Your task to perform on an android device: toggle notification dots Image 0: 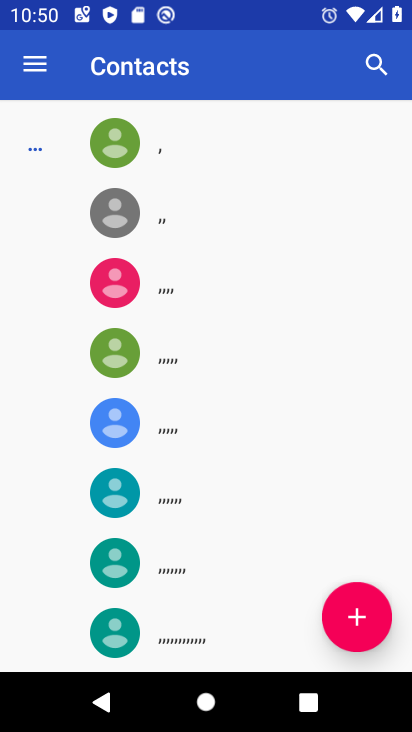
Step 0: press home button
Your task to perform on an android device: toggle notification dots Image 1: 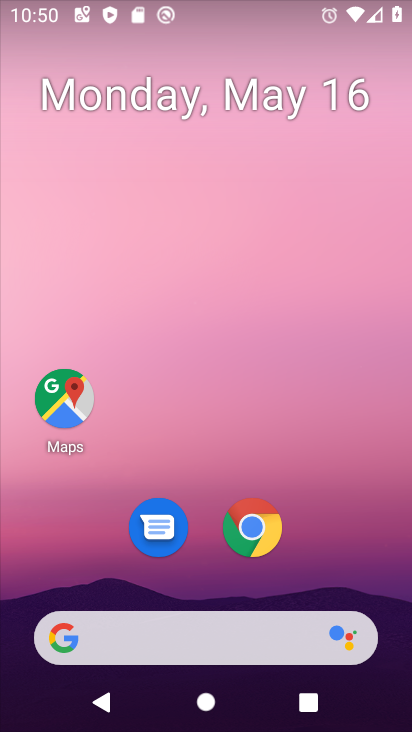
Step 1: drag from (342, 587) to (331, 18)
Your task to perform on an android device: toggle notification dots Image 2: 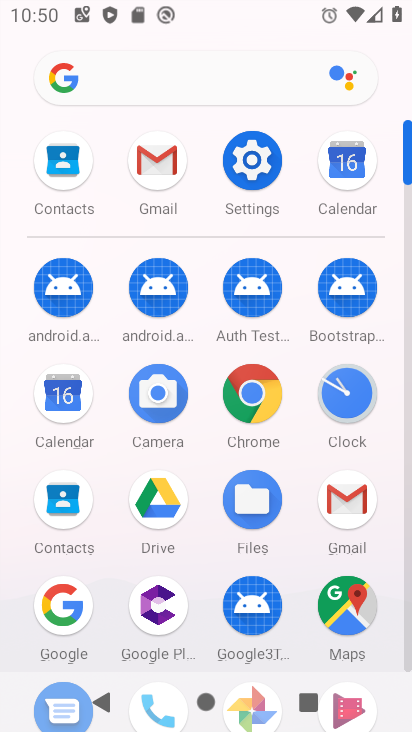
Step 2: click (243, 169)
Your task to perform on an android device: toggle notification dots Image 3: 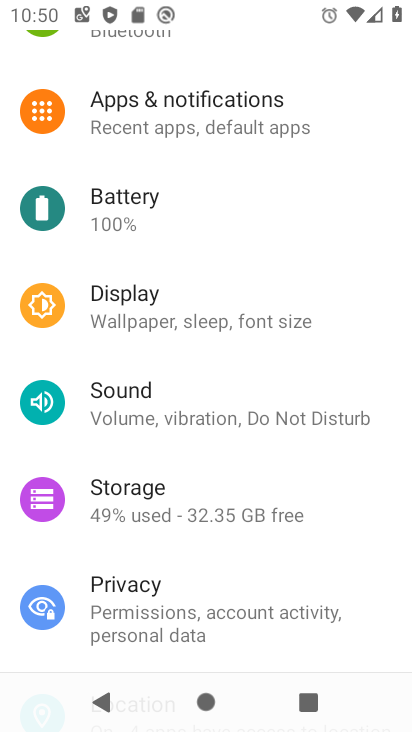
Step 3: click (166, 121)
Your task to perform on an android device: toggle notification dots Image 4: 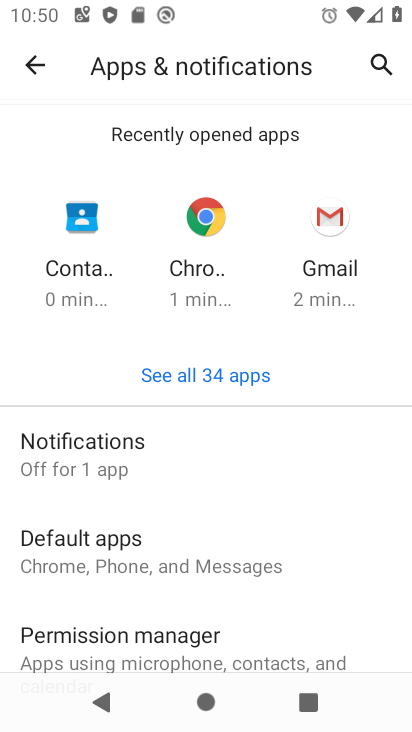
Step 4: click (98, 457)
Your task to perform on an android device: toggle notification dots Image 5: 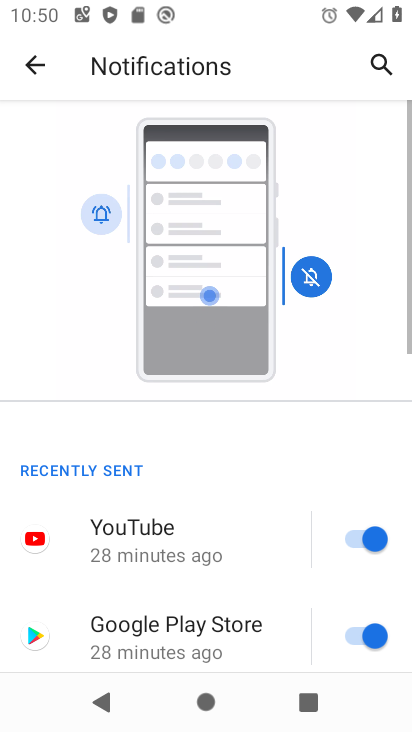
Step 5: drag from (223, 630) to (234, 142)
Your task to perform on an android device: toggle notification dots Image 6: 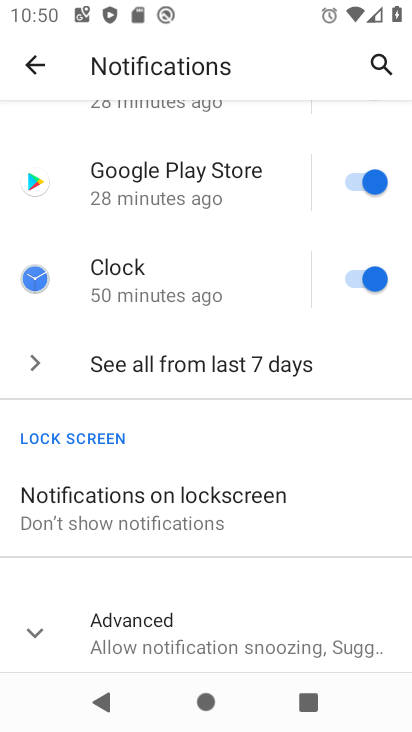
Step 6: click (34, 634)
Your task to perform on an android device: toggle notification dots Image 7: 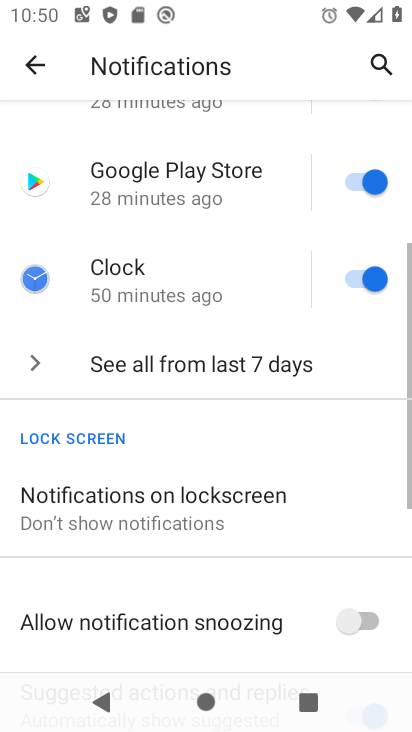
Step 7: drag from (169, 376) to (176, 147)
Your task to perform on an android device: toggle notification dots Image 8: 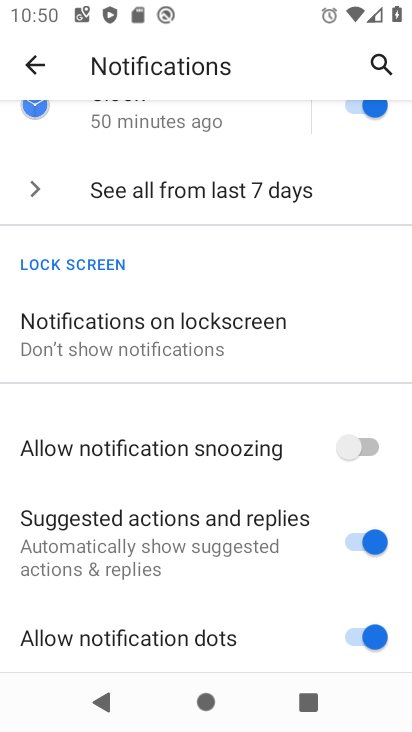
Step 8: drag from (185, 532) to (187, 314)
Your task to perform on an android device: toggle notification dots Image 9: 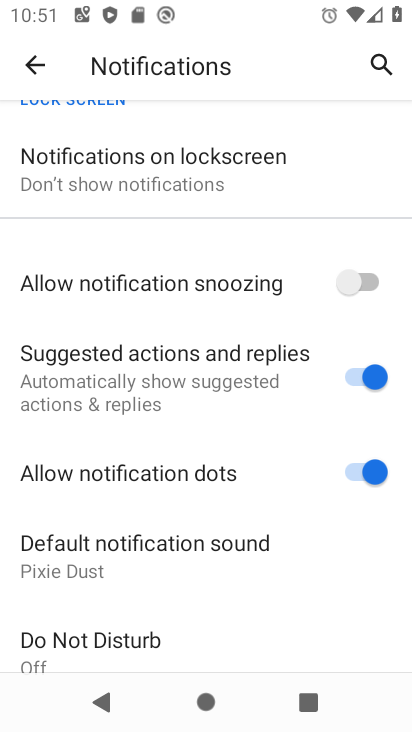
Step 9: click (371, 477)
Your task to perform on an android device: toggle notification dots Image 10: 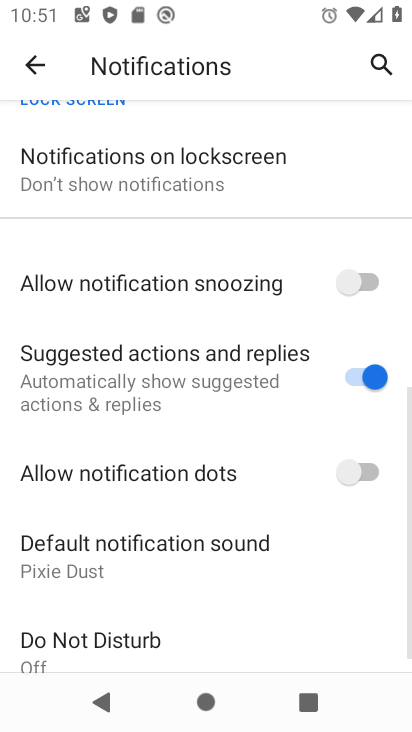
Step 10: task complete